Your task to perform on an android device: Open Google Maps and go to "Timeline" Image 0: 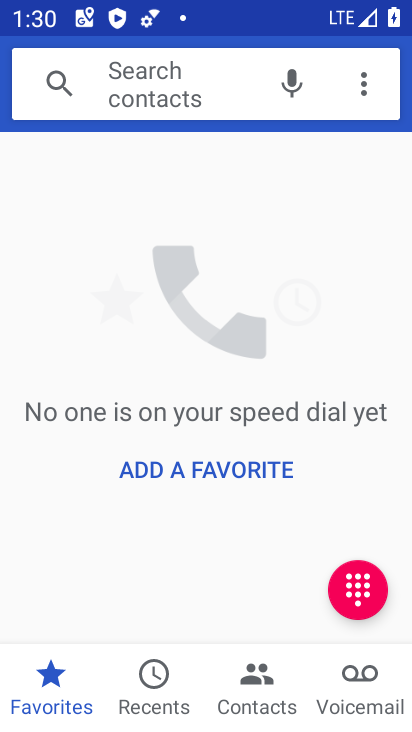
Step 0: press home button
Your task to perform on an android device: Open Google Maps and go to "Timeline" Image 1: 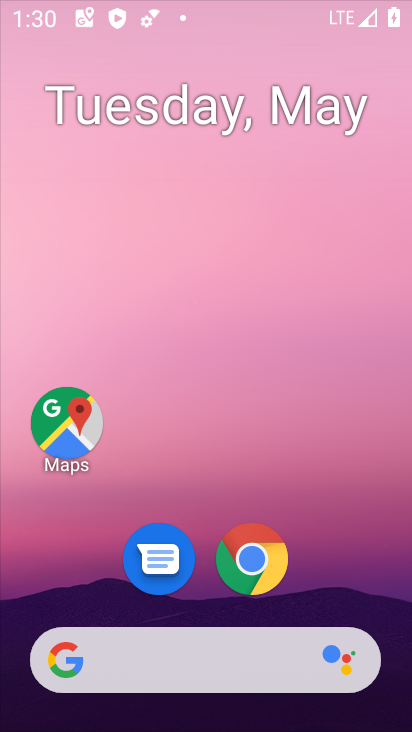
Step 1: click (48, 422)
Your task to perform on an android device: Open Google Maps and go to "Timeline" Image 2: 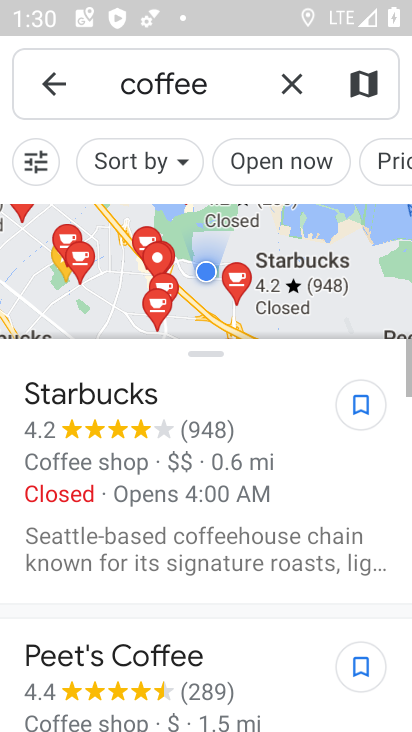
Step 2: click (286, 90)
Your task to perform on an android device: Open Google Maps and go to "Timeline" Image 3: 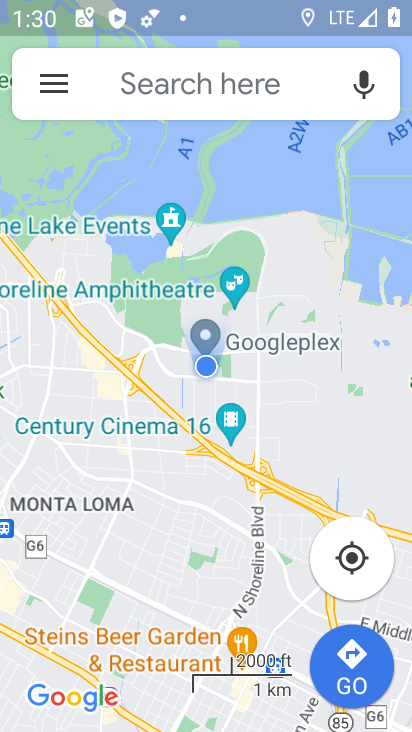
Step 3: click (53, 86)
Your task to perform on an android device: Open Google Maps and go to "Timeline" Image 4: 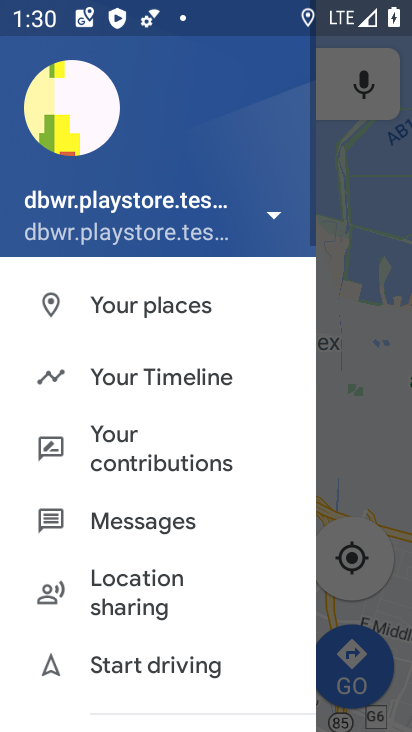
Step 4: click (102, 380)
Your task to perform on an android device: Open Google Maps and go to "Timeline" Image 5: 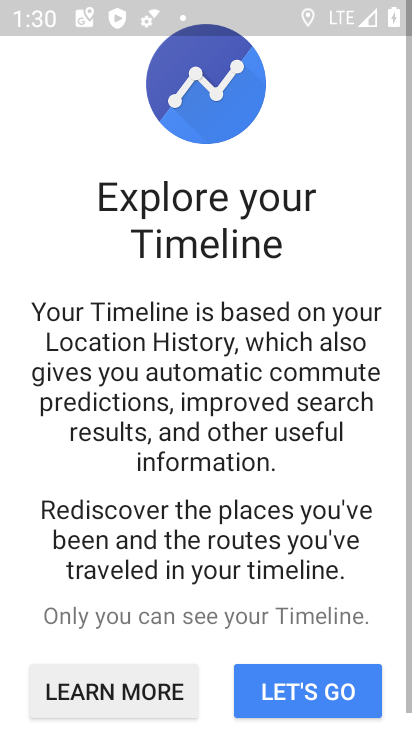
Step 5: click (297, 681)
Your task to perform on an android device: Open Google Maps and go to "Timeline" Image 6: 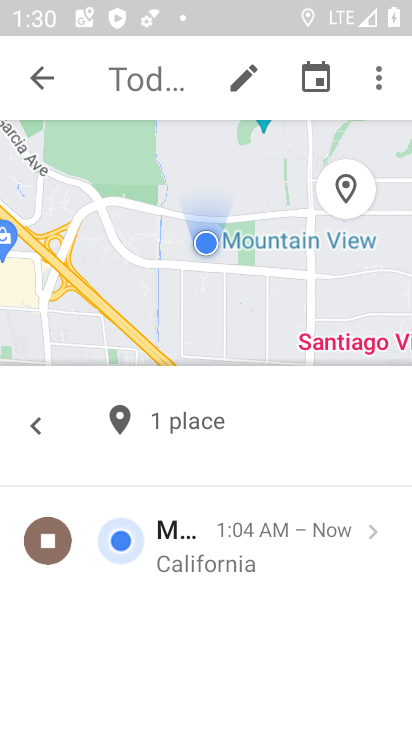
Step 6: task complete